Your task to perform on an android device: find photos in the google photos app Image 0: 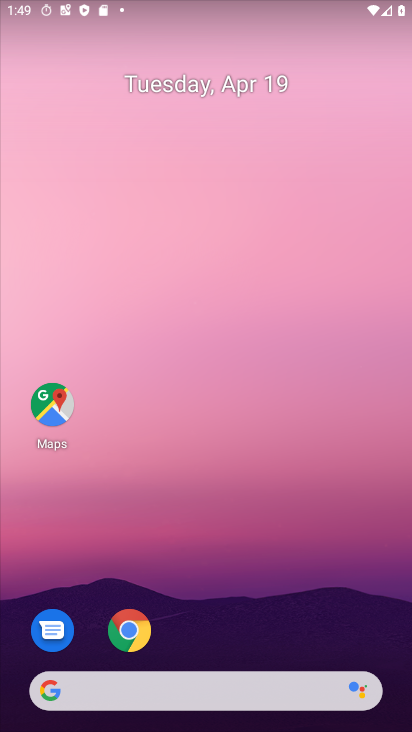
Step 0: drag from (240, 550) to (233, 101)
Your task to perform on an android device: find photos in the google photos app Image 1: 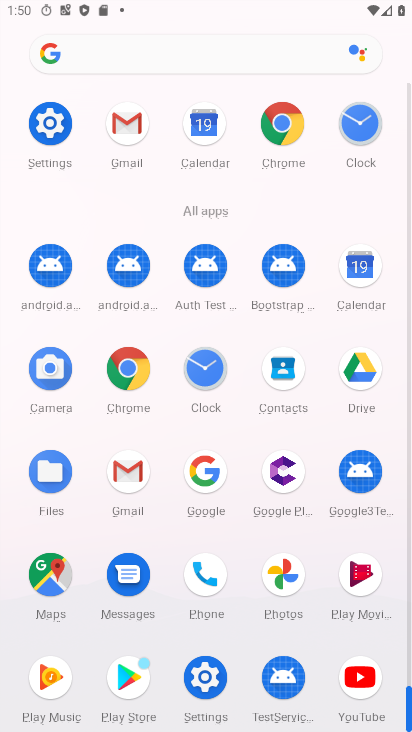
Step 1: click (277, 578)
Your task to perform on an android device: find photos in the google photos app Image 2: 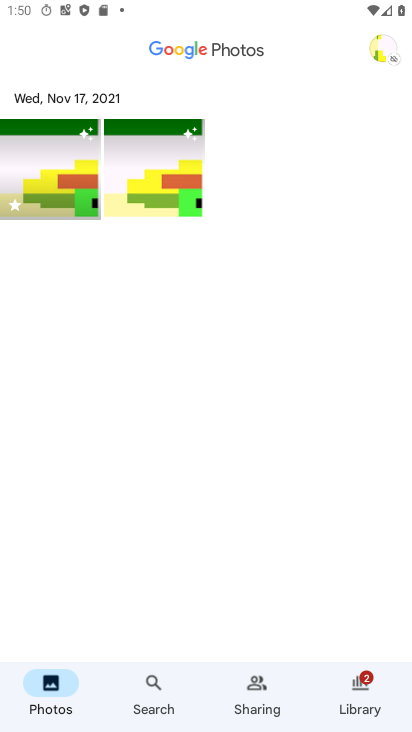
Step 2: task complete